Your task to perform on an android device: uninstall "Flipkart Online Shopping App" Image 0: 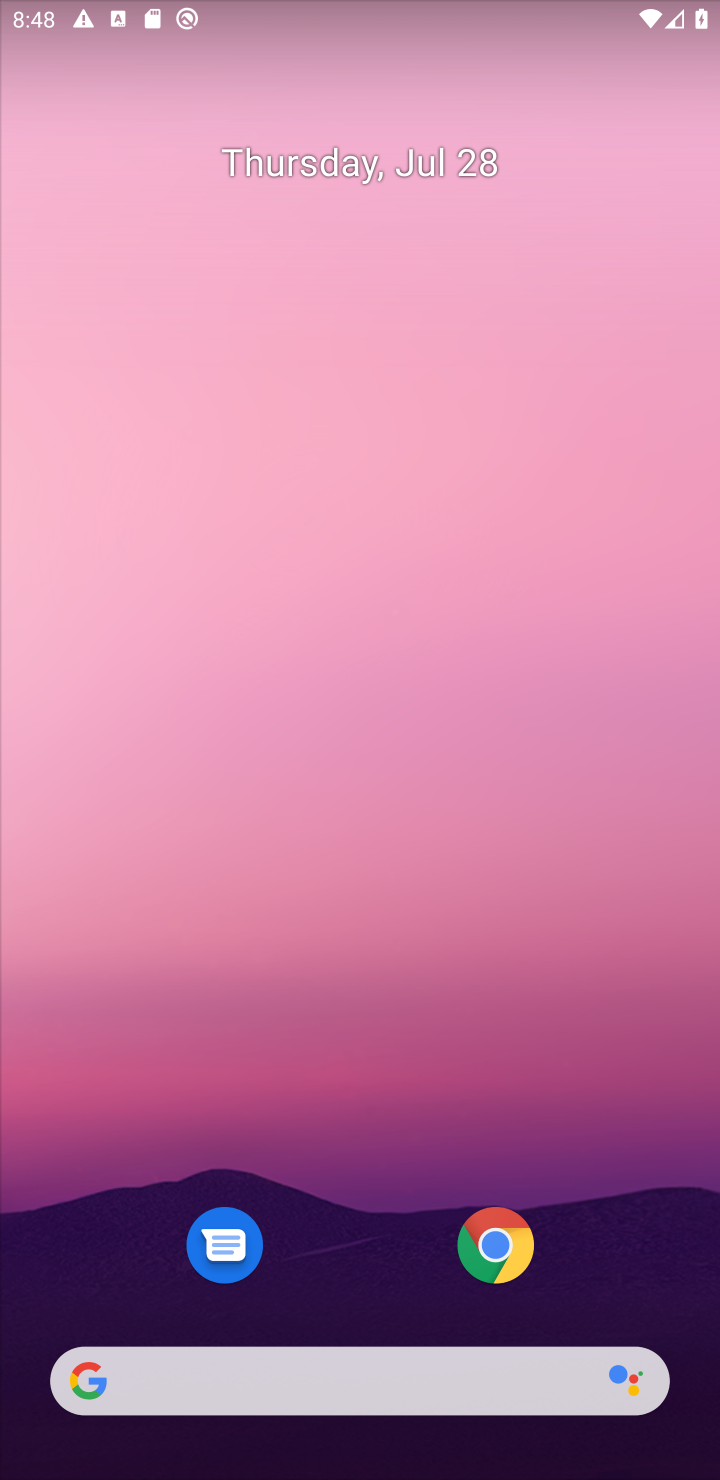
Step 0: drag from (365, 1255) to (365, 287)
Your task to perform on an android device: uninstall "Flipkart Online Shopping App" Image 1: 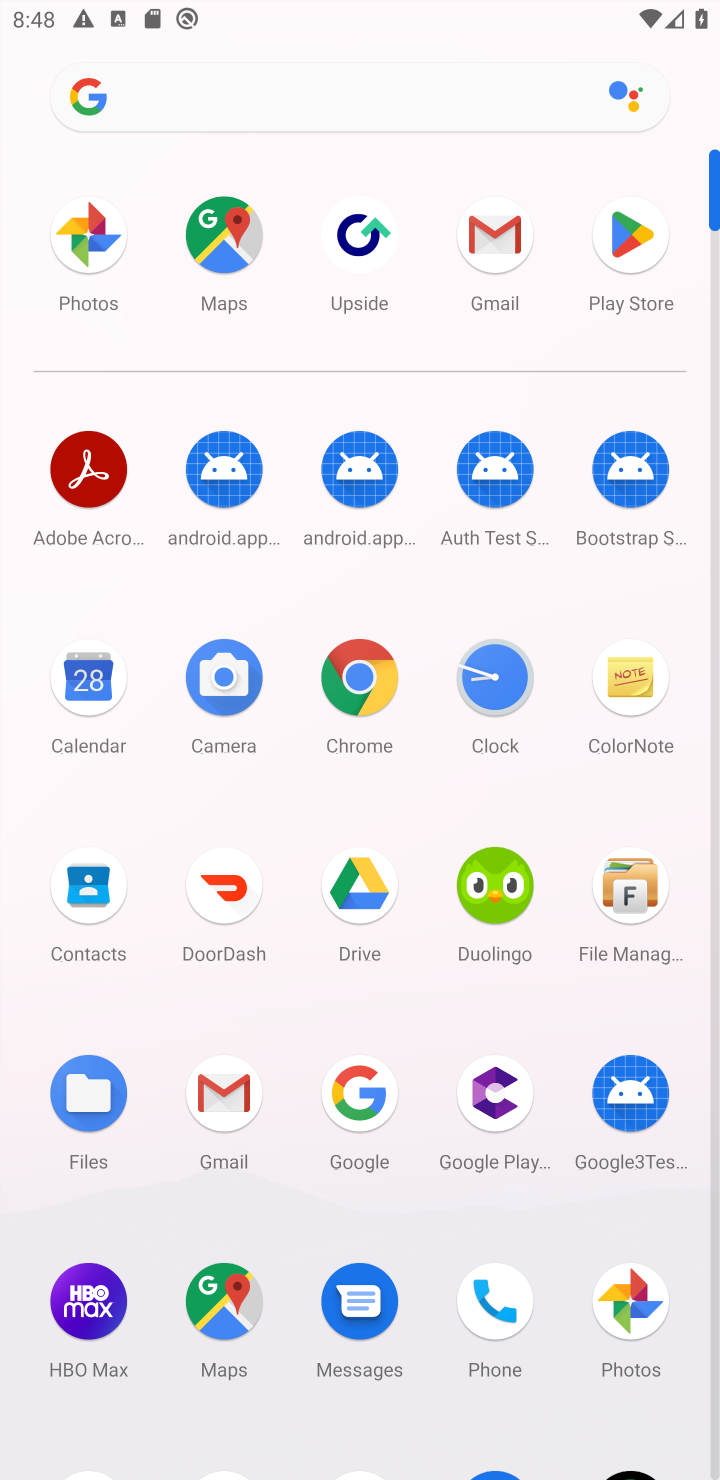
Step 1: click (612, 236)
Your task to perform on an android device: uninstall "Flipkart Online Shopping App" Image 2: 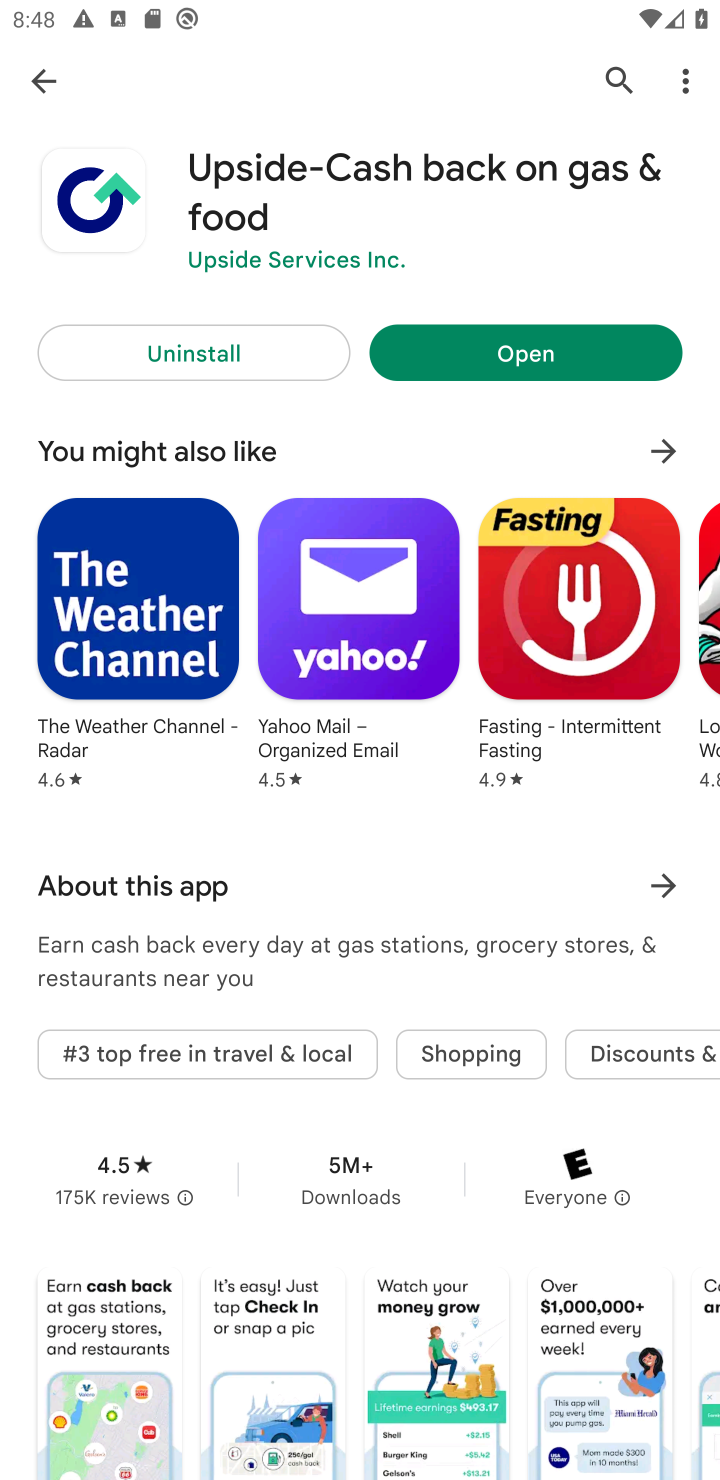
Step 2: click (609, 78)
Your task to perform on an android device: uninstall "Flipkart Online Shopping App" Image 3: 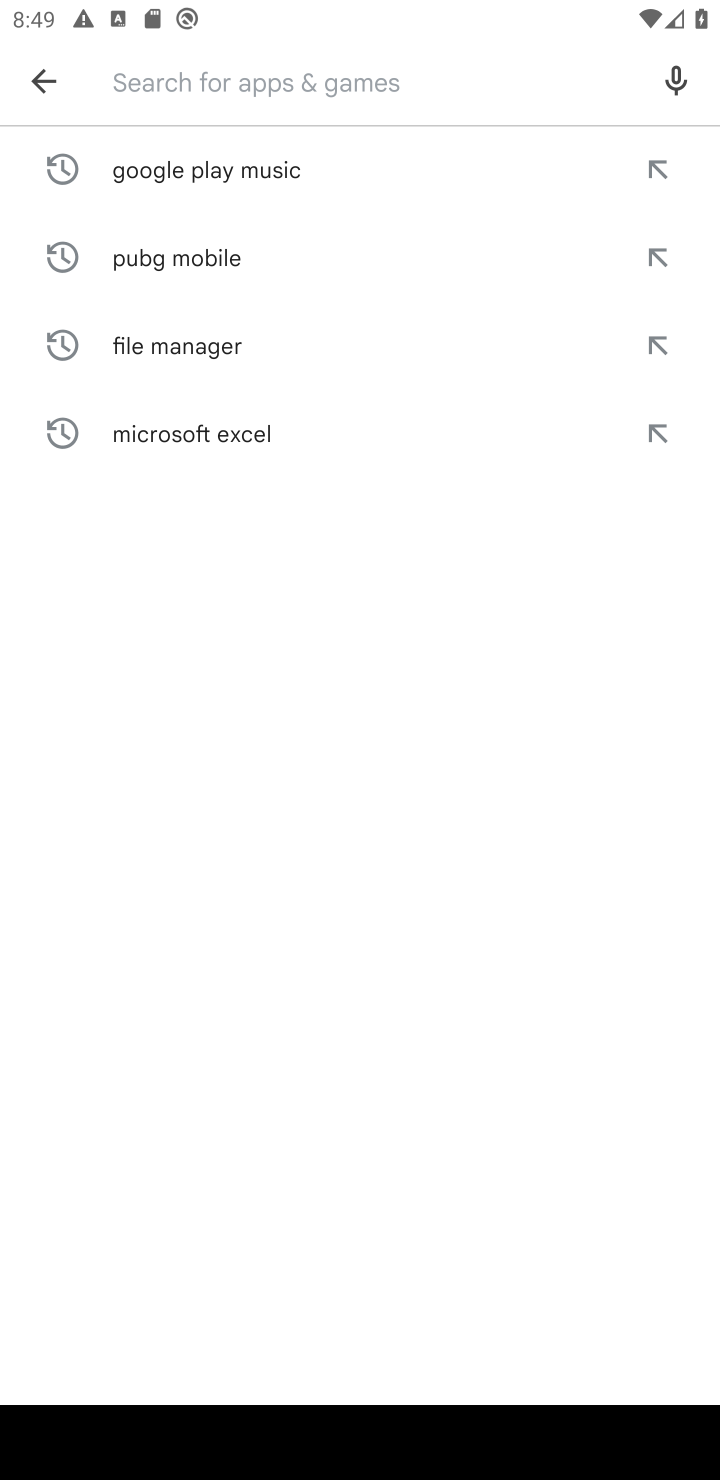
Step 3: type "flipkart online shopping App"
Your task to perform on an android device: uninstall "Flipkart Online Shopping App" Image 4: 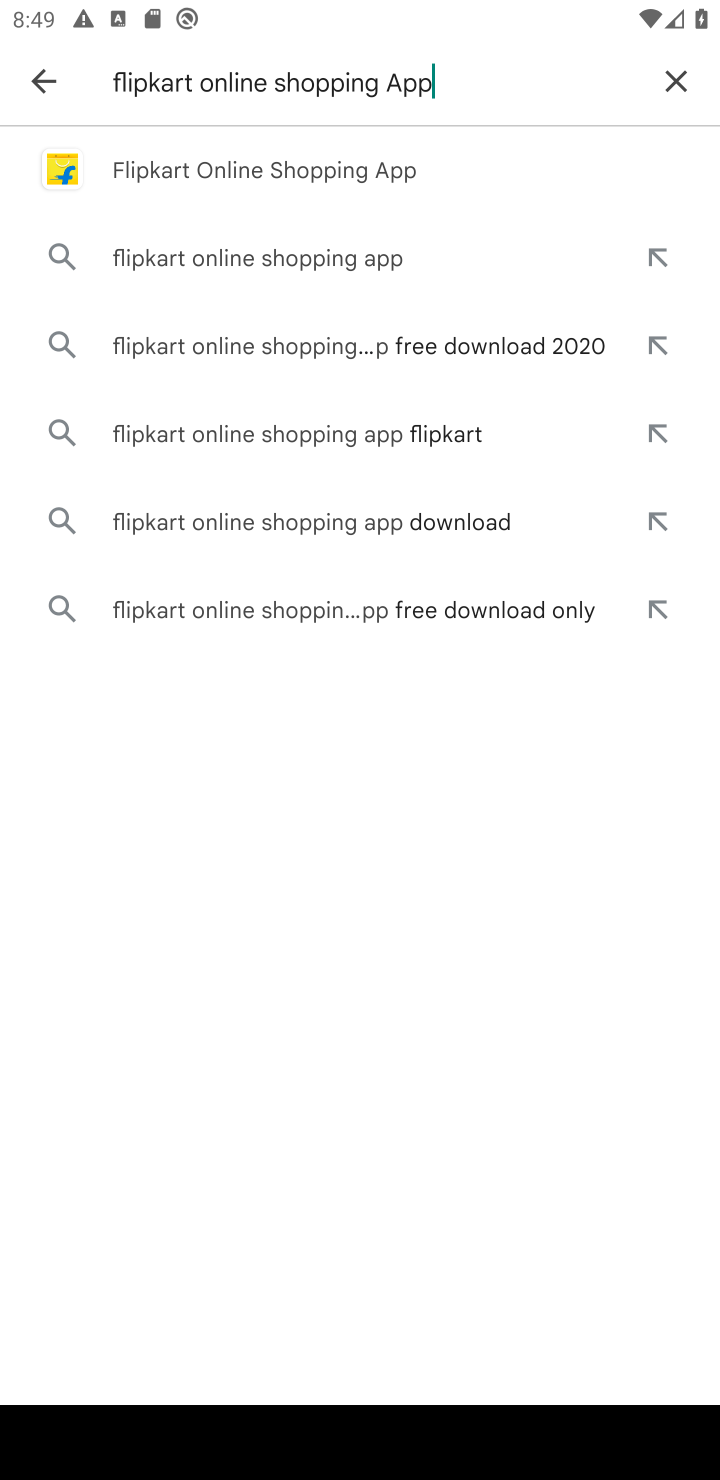
Step 4: click (447, 185)
Your task to perform on an android device: uninstall "Flipkart Online Shopping App" Image 5: 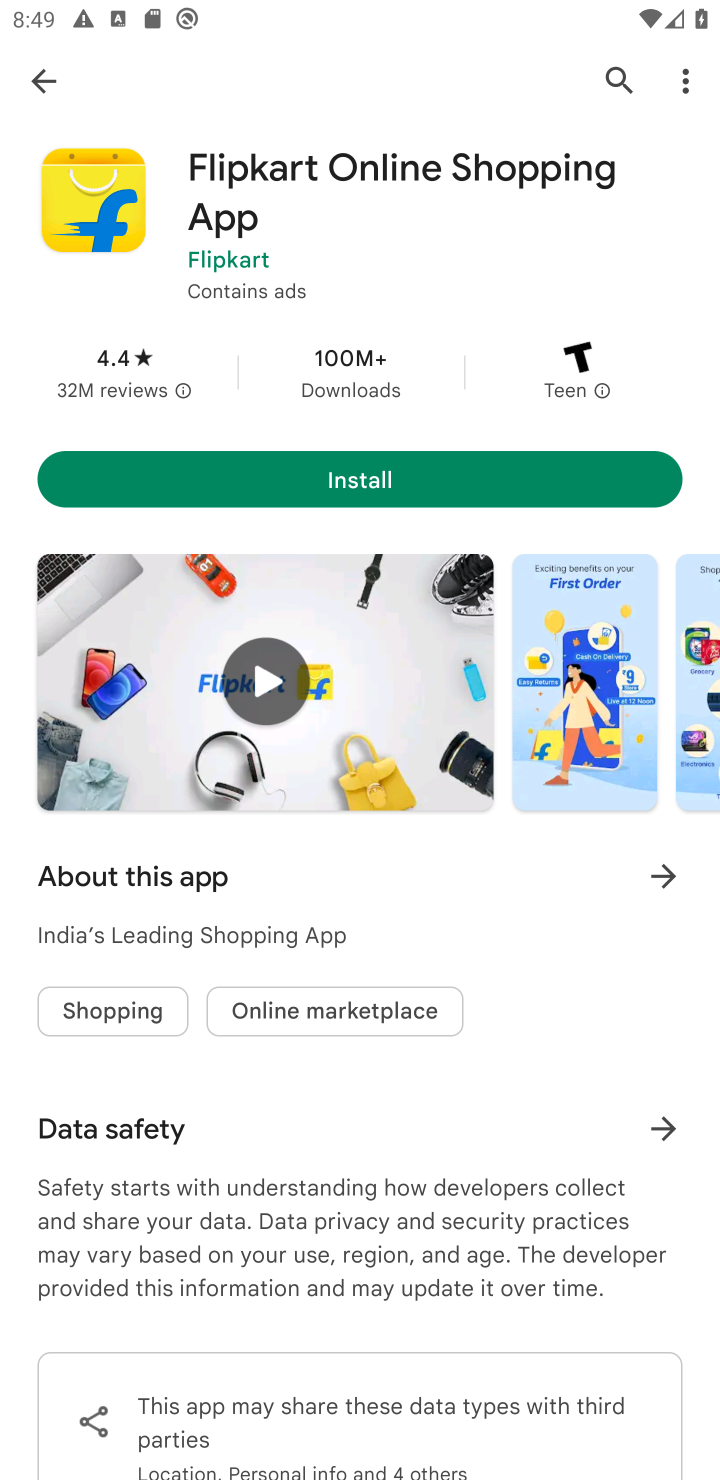
Step 5: task complete